Your task to perform on an android device: toggle notifications settings in the gmail app Image 0: 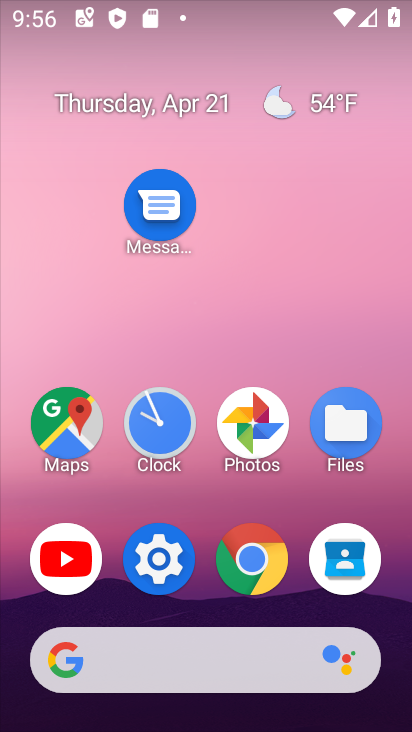
Step 0: drag from (230, 715) to (188, 34)
Your task to perform on an android device: toggle notifications settings in the gmail app Image 1: 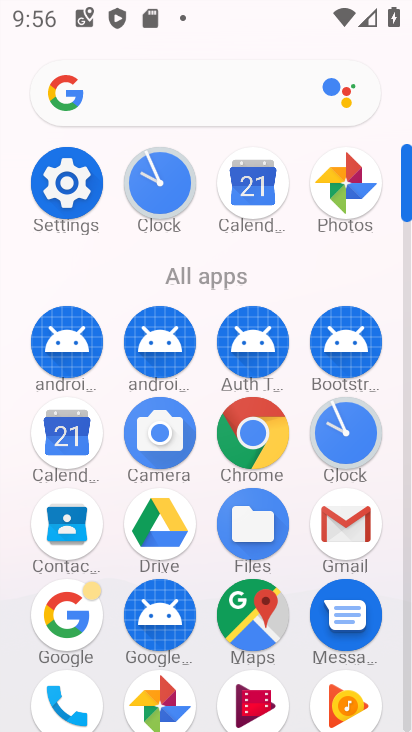
Step 1: click (346, 514)
Your task to perform on an android device: toggle notifications settings in the gmail app Image 2: 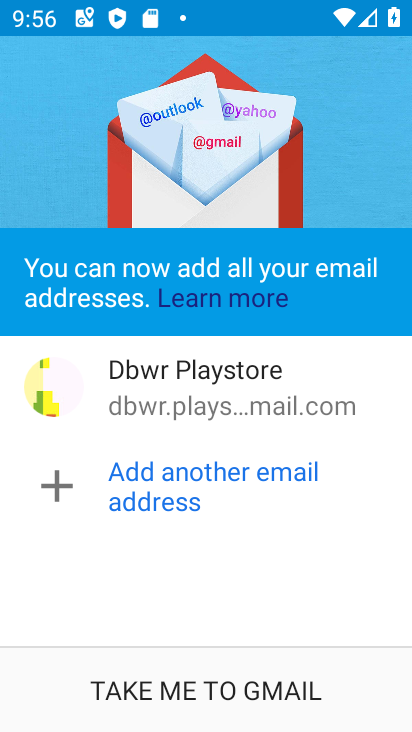
Step 2: click (218, 693)
Your task to perform on an android device: toggle notifications settings in the gmail app Image 3: 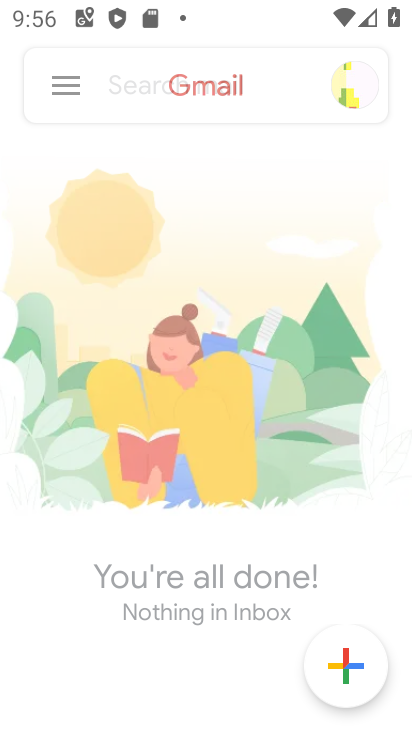
Step 3: click (65, 83)
Your task to perform on an android device: toggle notifications settings in the gmail app Image 4: 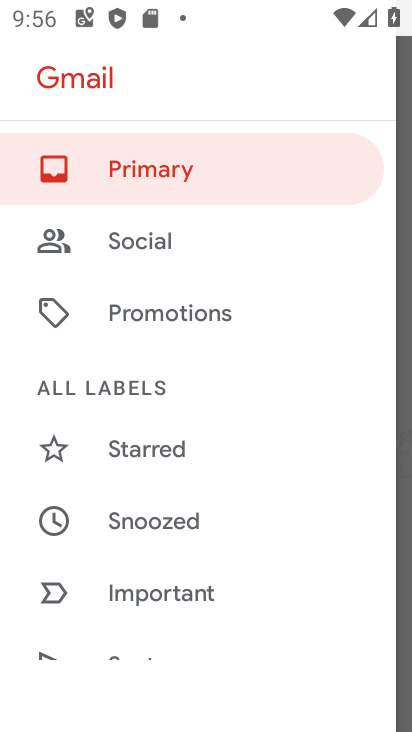
Step 4: drag from (266, 545) to (288, 32)
Your task to perform on an android device: toggle notifications settings in the gmail app Image 5: 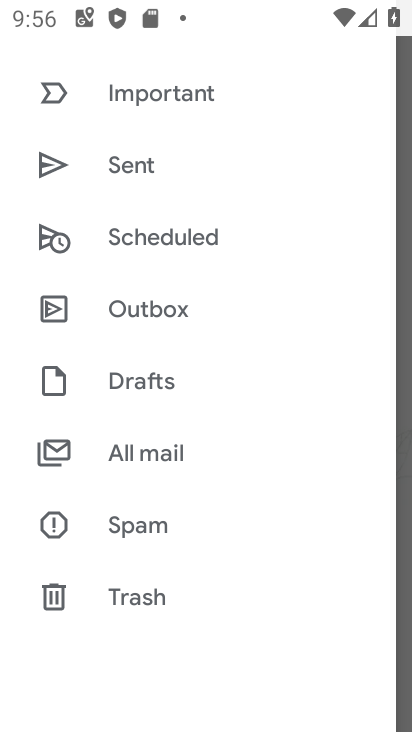
Step 5: drag from (229, 565) to (236, 23)
Your task to perform on an android device: toggle notifications settings in the gmail app Image 6: 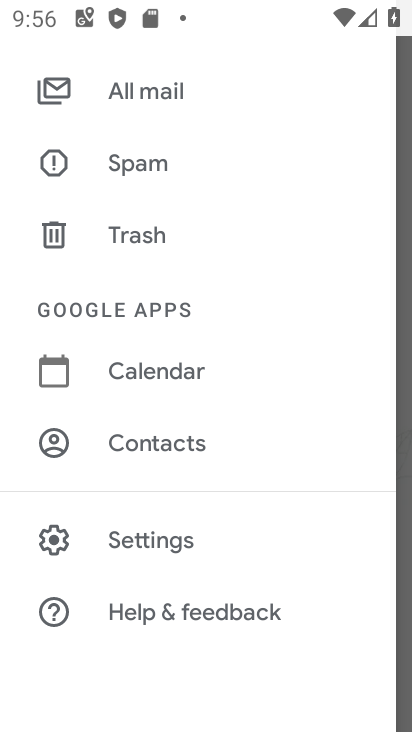
Step 6: click (165, 541)
Your task to perform on an android device: toggle notifications settings in the gmail app Image 7: 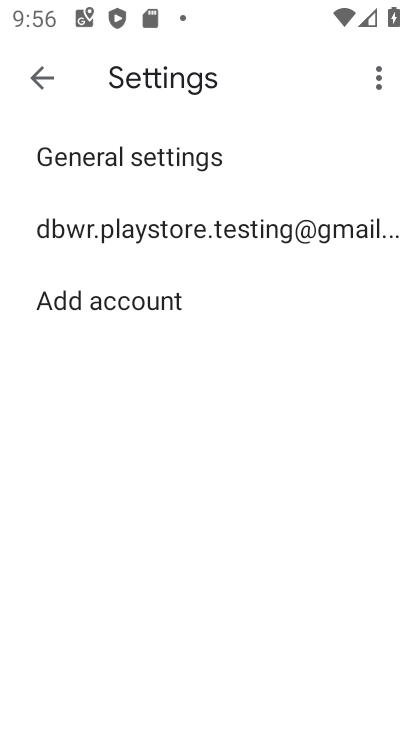
Step 7: click (147, 155)
Your task to perform on an android device: toggle notifications settings in the gmail app Image 8: 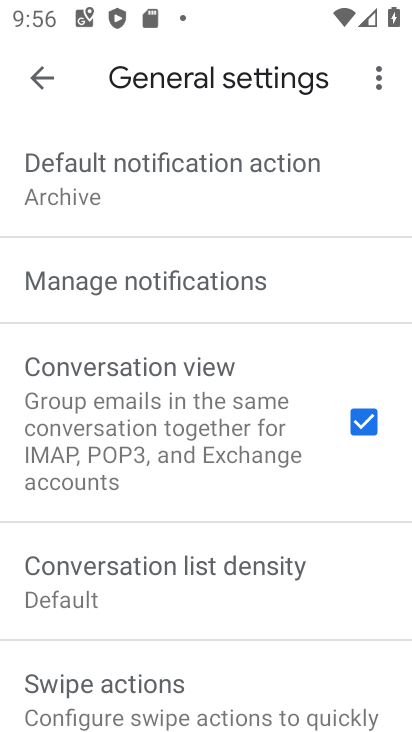
Step 8: click (142, 272)
Your task to perform on an android device: toggle notifications settings in the gmail app Image 9: 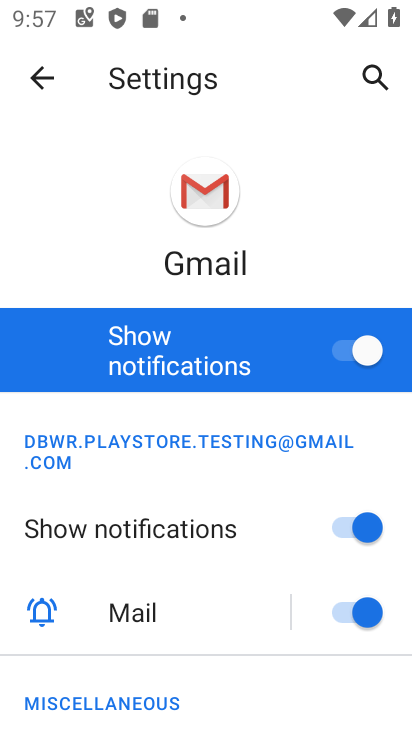
Step 9: click (365, 346)
Your task to perform on an android device: toggle notifications settings in the gmail app Image 10: 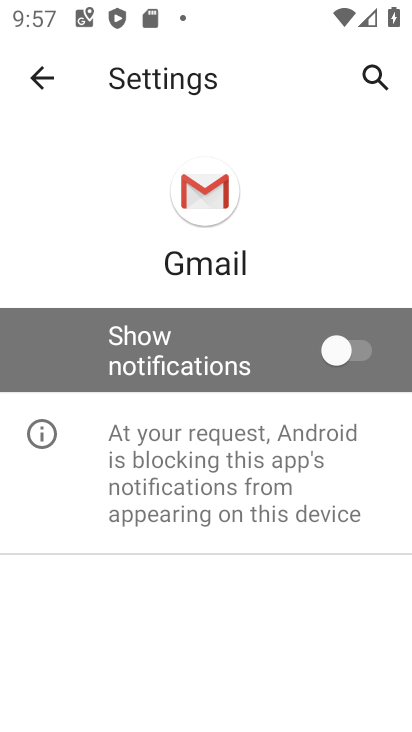
Step 10: task complete